Your task to perform on an android device: Go to Android settings Image 0: 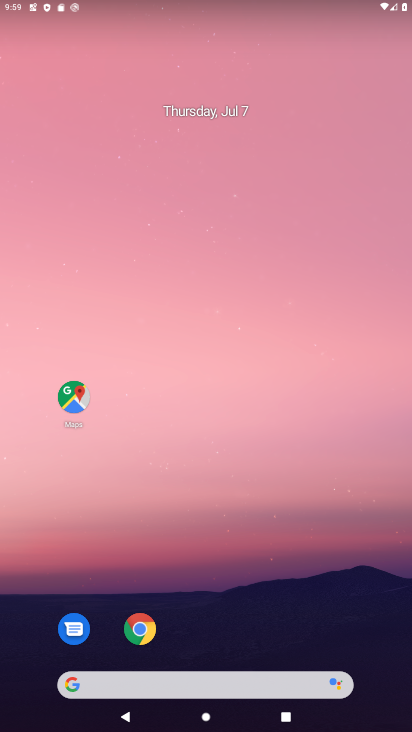
Step 0: drag from (221, 654) to (261, 138)
Your task to perform on an android device: Go to Android settings Image 1: 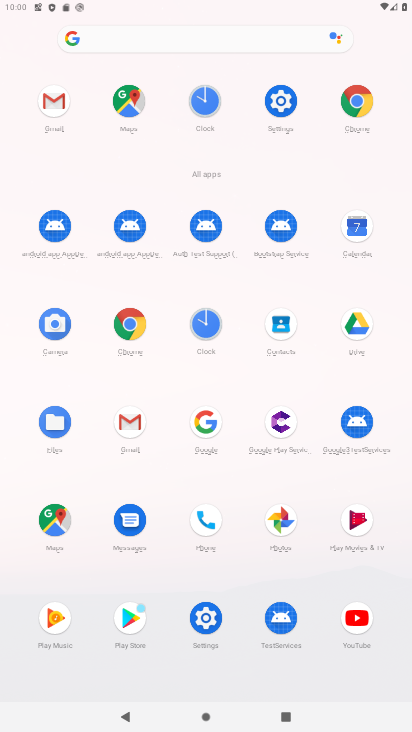
Step 1: click (285, 105)
Your task to perform on an android device: Go to Android settings Image 2: 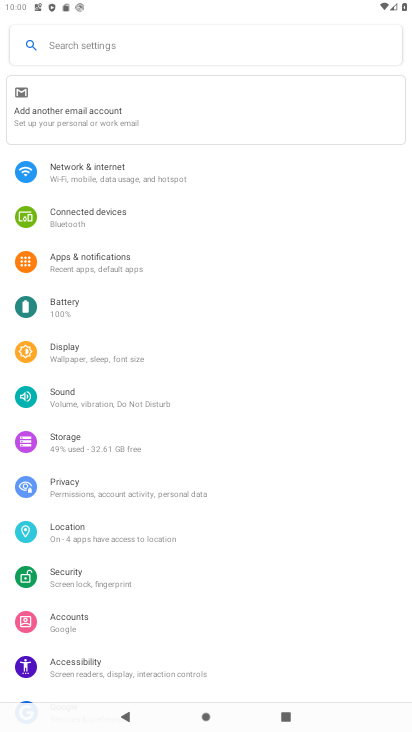
Step 2: task complete